Your task to perform on an android device: open a new tab in the chrome app Image 0: 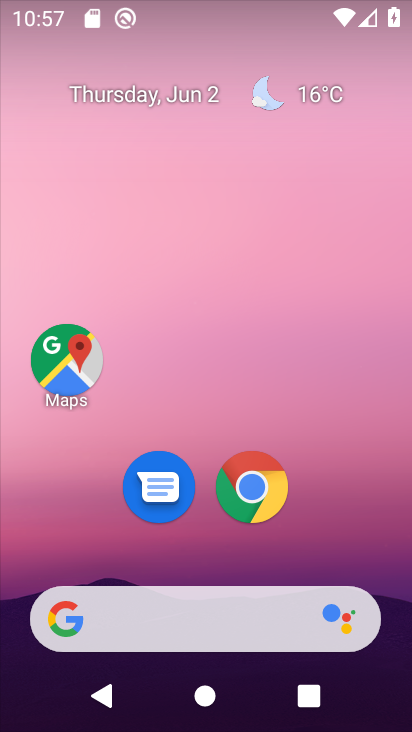
Step 0: click (248, 483)
Your task to perform on an android device: open a new tab in the chrome app Image 1: 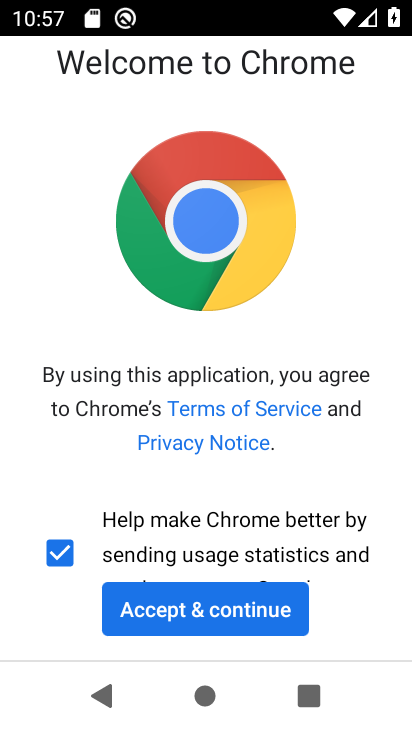
Step 1: click (191, 606)
Your task to perform on an android device: open a new tab in the chrome app Image 2: 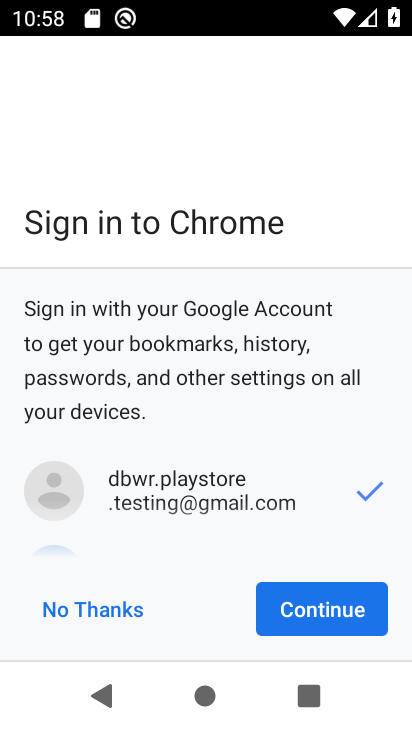
Step 2: click (311, 608)
Your task to perform on an android device: open a new tab in the chrome app Image 3: 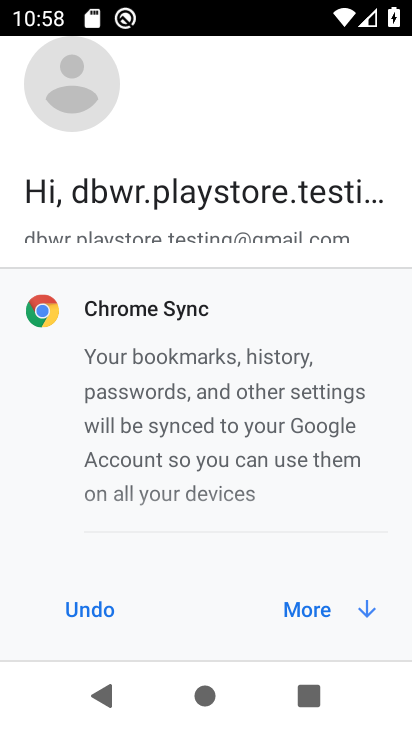
Step 3: click (311, 608)
Your task to perform on an android device: open a new tab in the chrome app Image 4: 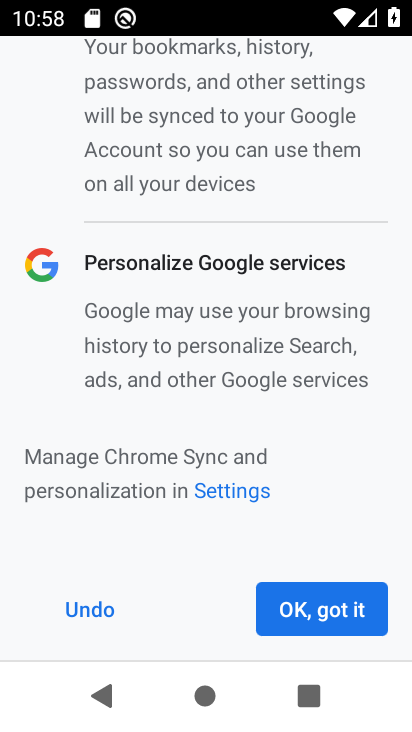
Step 4: click (311, 608)
Your task to perform on an android device: open a new tab in the chrome app Image 5: 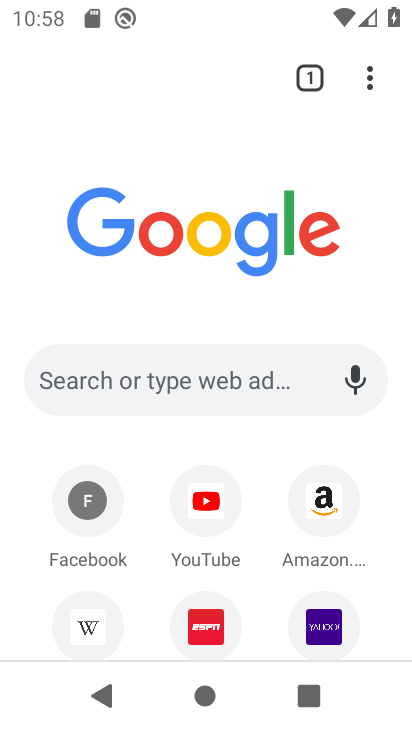
Step 5: click (369, 76)
Your task to perform on an android device: open a new tab in the chrome app Image 6: 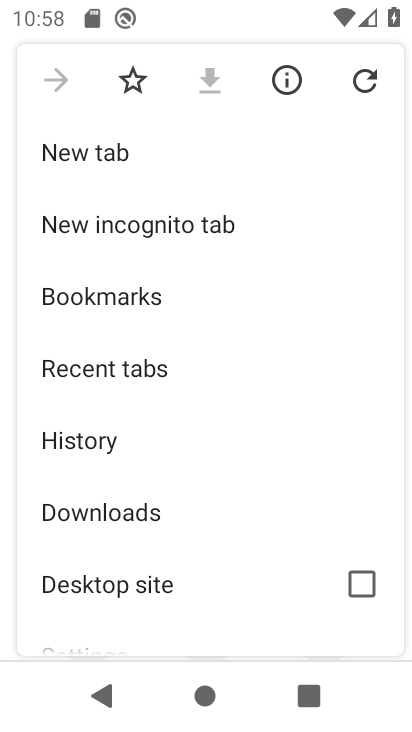
Step 6: click (100, 157)
Your task to perform on an android device: open a new tab in the chrome app Image 7: 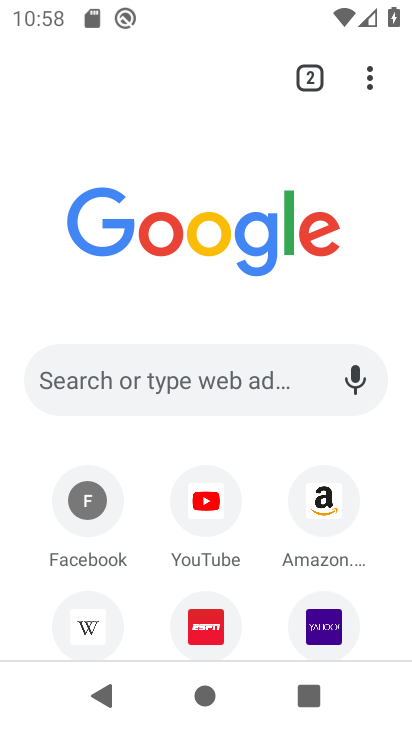
Step 7: task complete